Your task to perform on an android device: turn off improve location accuracy Image 0: 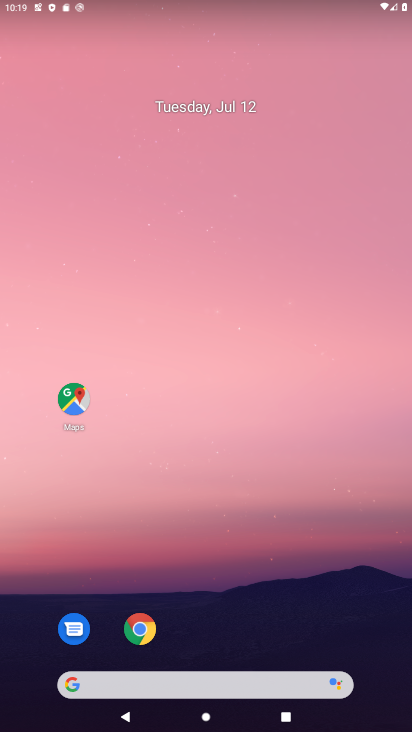
Step 0: drag from (308, 608) to (275, 244)
Your task to perform on an android device: turn off improve location accuracy Image 1: 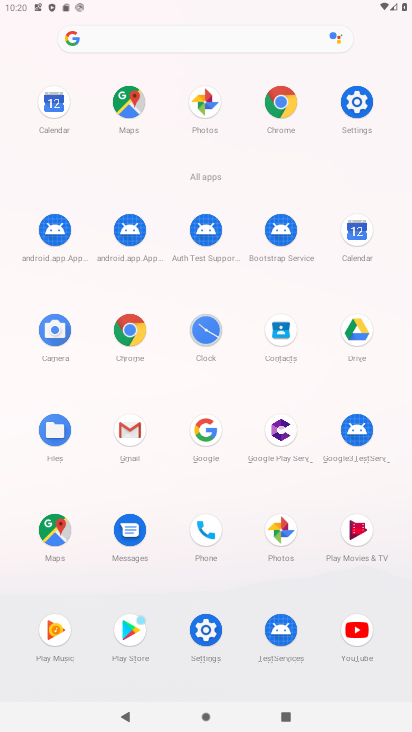
Step 1: click (201, 639)
Your task to perform on an android device: turn off improve location accuracy Image 2: 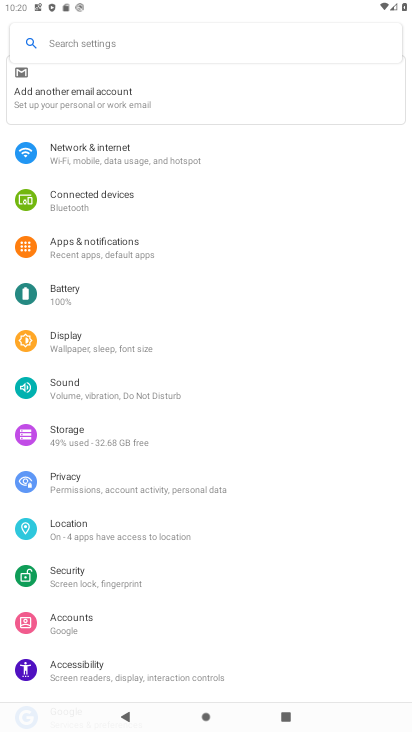
Step 2: drag from (228, 631) to (221, 404)
Your task to perform on an android device: turn off improve location accuracy Image 3: 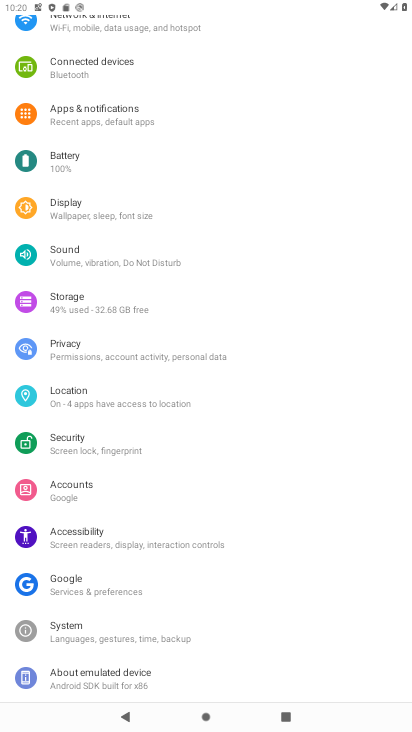
Step 3: click (117, 399)
Your task to perform on an android device: turn off improve location accuracy Image 4: 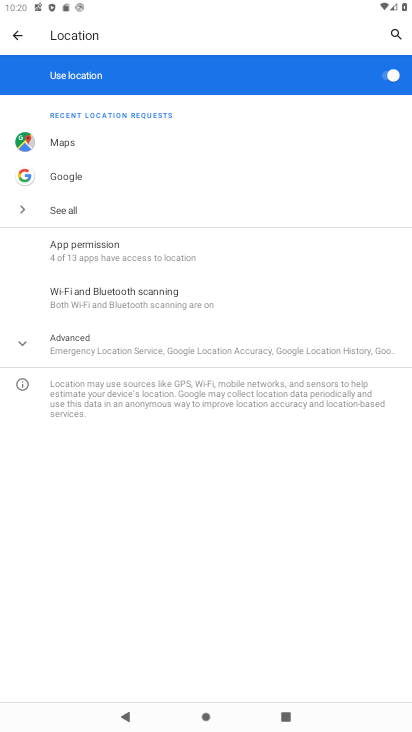
Step 4: click (97, 337)
Your task to perform on an android device: turn off improve location accuracy Image 5: 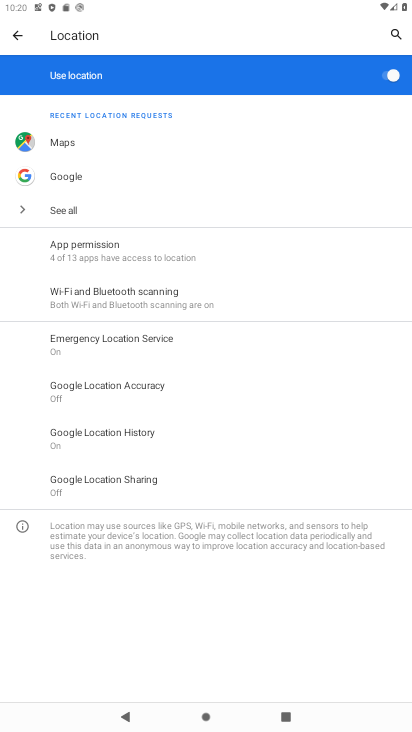
Step 5: click (123, 393)
Your task to perform on an android device: turn off improve location accuracy Image 6: 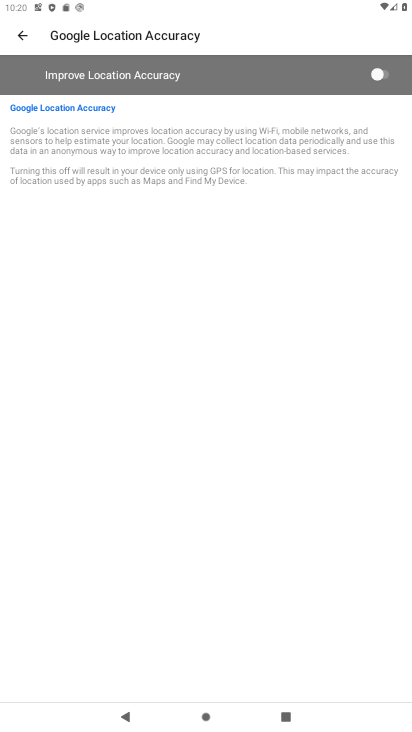
Step 6: task complete